Your task to perform on an android device: add a label to a message in the gmail app Image 0: 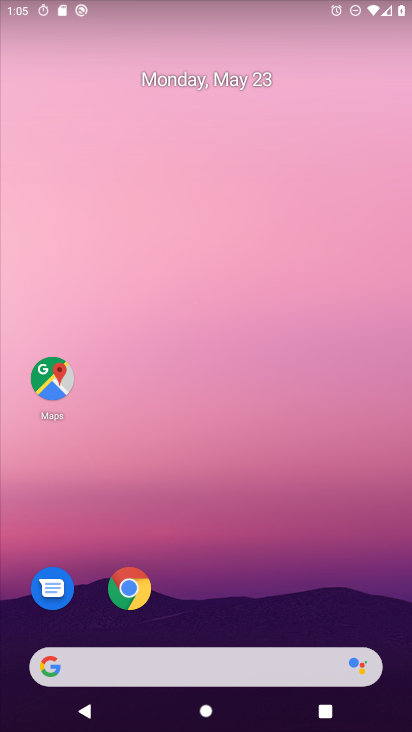
Step 0: drag from (264, 679) to (244, 40)
Your task to perform on an android device: add a label to a message in the gmail app Image 1: 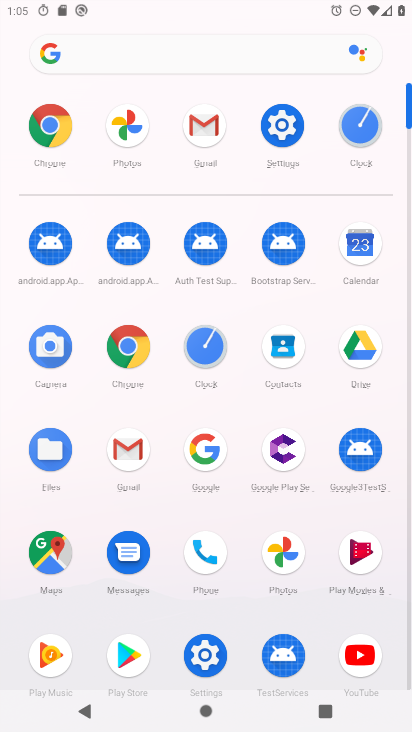
Step 1: click (214, 147)
Your task to perform on an android device: add a label to a message in the gmail app Image 2: 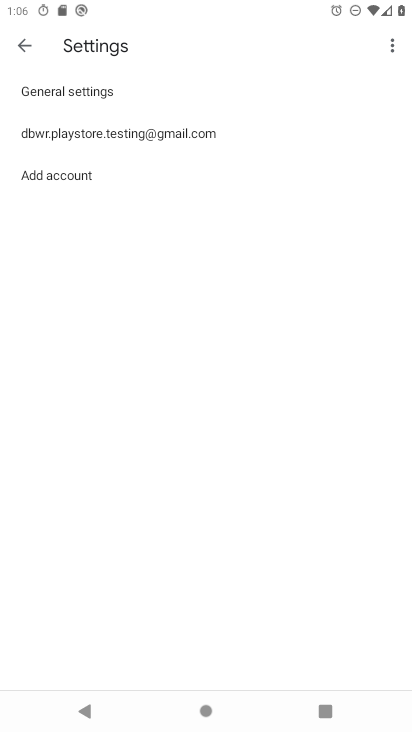
Step 2: click (178, 141)
Your task to perform on an android device: add a label to a message in the gmail app Image 3: 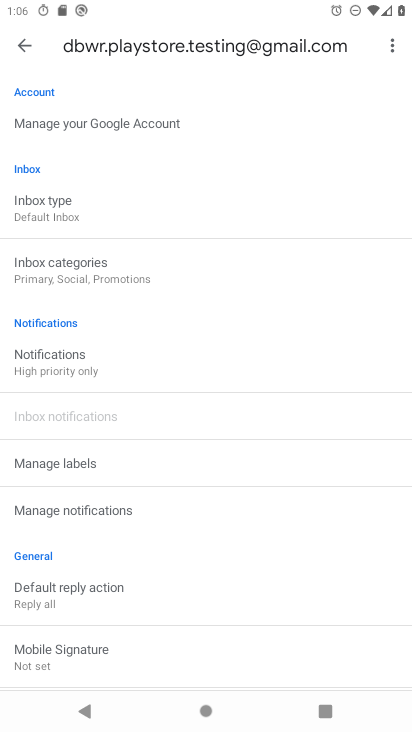
Step 3: click (78, 456)
Your task to perform on an android device: add a label to a message in the gmail app Image 4: 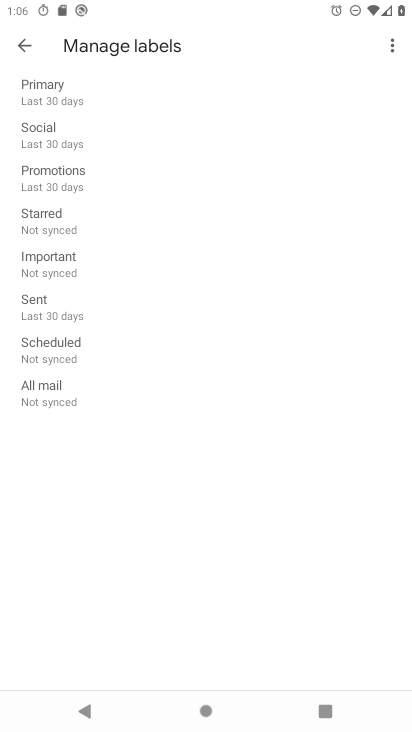
Step 4: click (87, 253)
Your task to perform on an android device: add a label to a message in the gmail app Image 5: 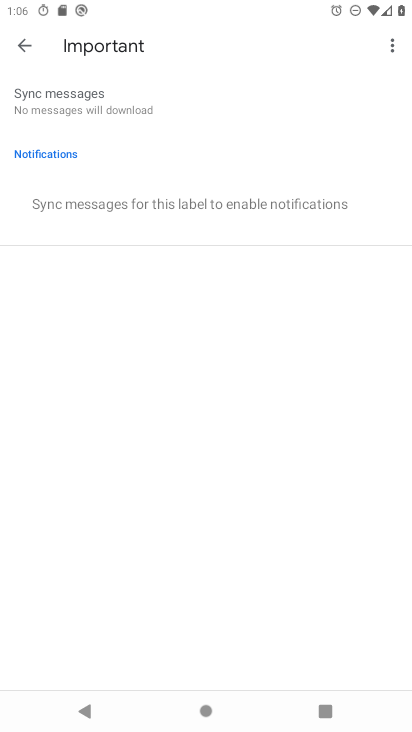
Step 5: task complete